Your task to perform on an android device: check the backup settings in the google photos Image 0: 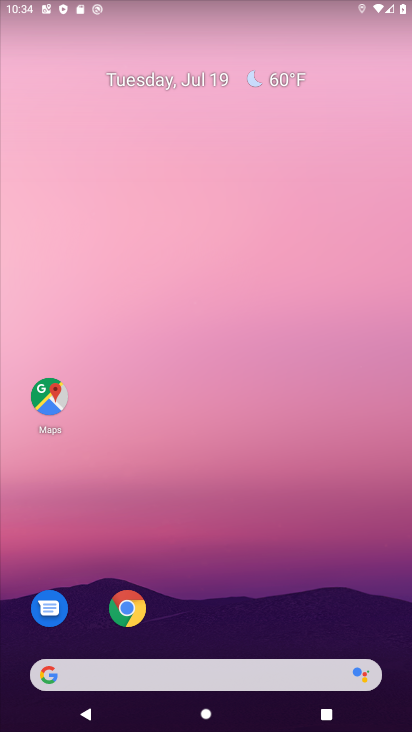
Step 0: drag from (214, 647) to (164, 131)
Your task to perform on an android device: check the backup settings in the google photos Image 1: 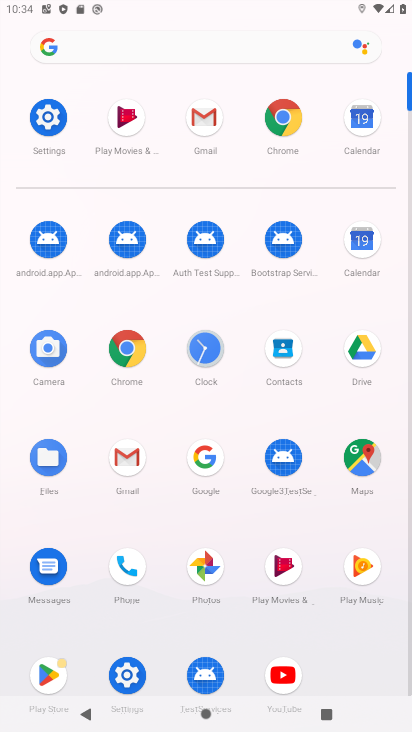
Step 1: click (214, 566)
Your task to perform on an android device: check the backup settings in the google photos Image 2: 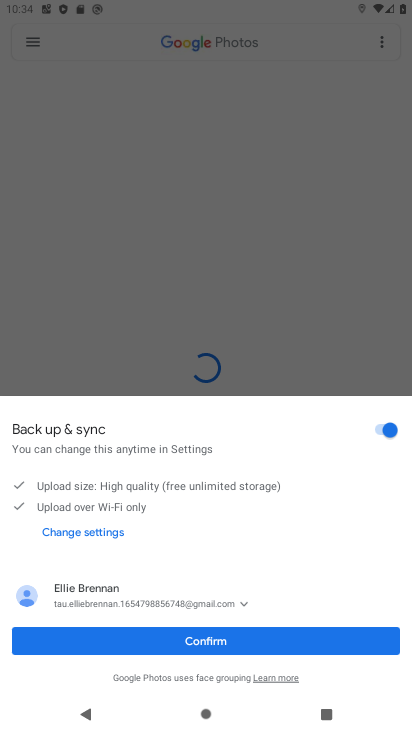
Step 2: click (25, 43)
Your task to perform on an android device: check the backup settings in the google photos Image 3: 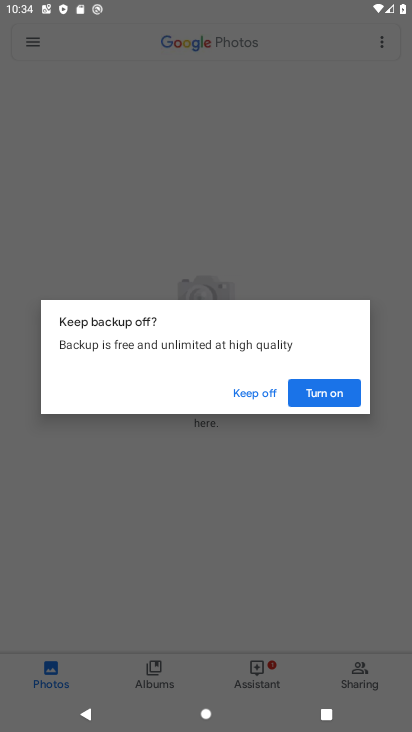
Step 3: click (314, 397)
Your task to perform on an android device: check the backup settings in the google photos Image 4: 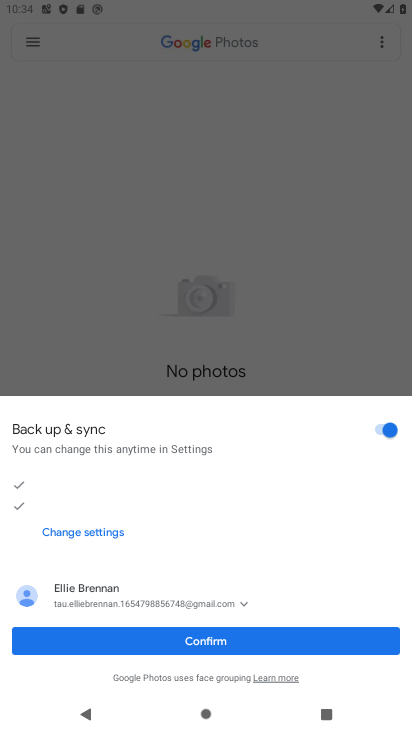
Step 4: click (251, 645)
Your task to perform on an android device: check the backup settings in the google photos Image 5: 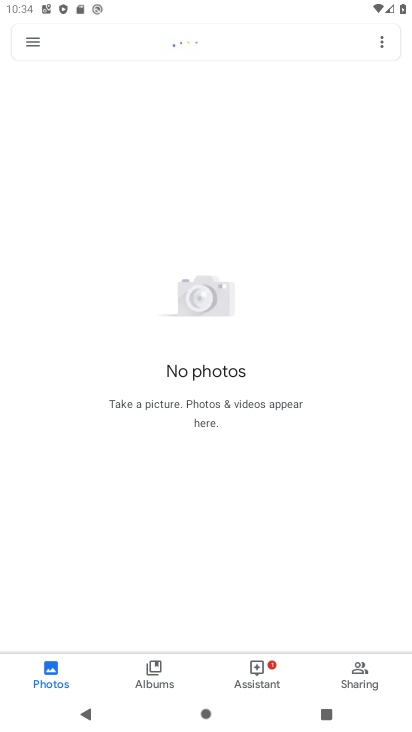
Step 5: click (23, 47)
Your task to perform on an android device: check the backup settings in the google photos Image 6: 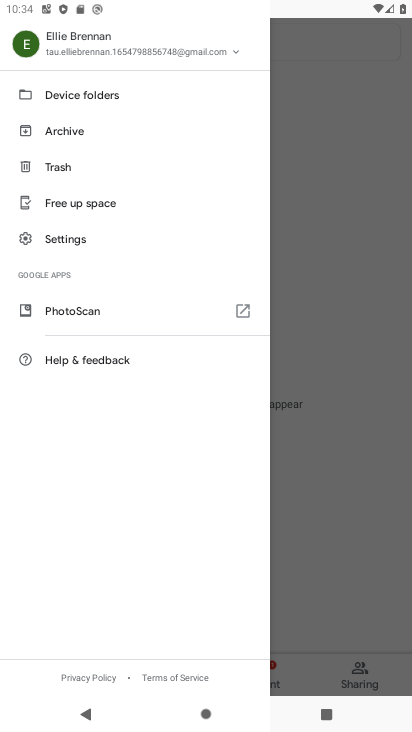
Step 6: click (65, 241)
Your task to perform on an android device: check the backup settings in the google photos Image 7: 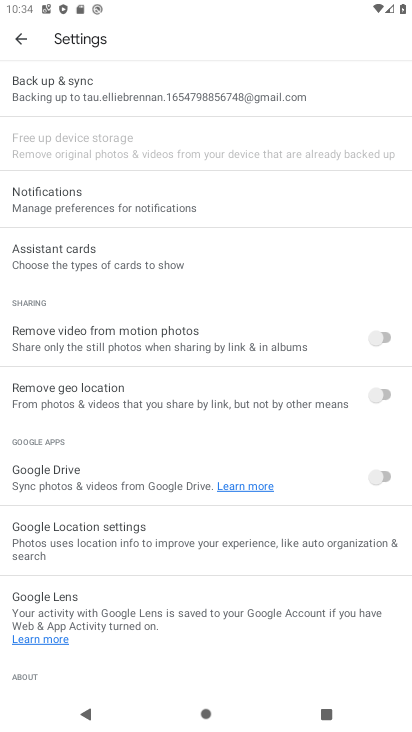
Step 7: click (142, 89)
Your task to perform on an android device: check the backup settings in the google photos Image 8: 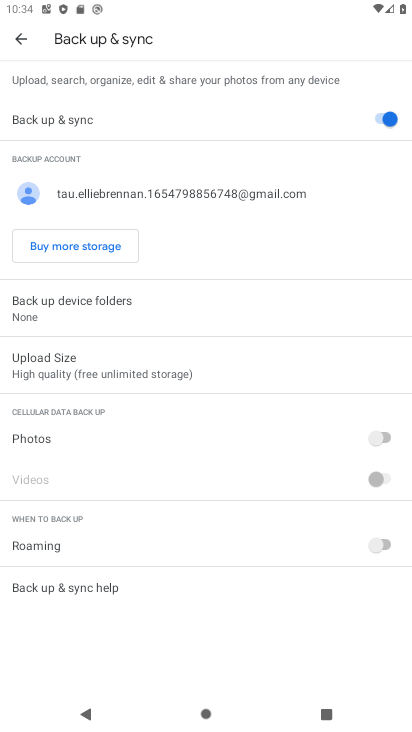
Step 8: task complete